Your task to perform on an android device: Toggle the flashlight Image 0: 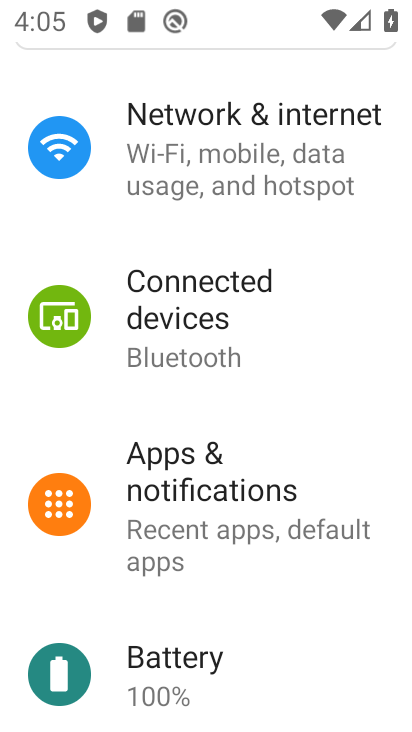
Step 0: drag from (261, 243) to (242, 623)
Your task to perform on an android device: Toggle the flashlight Image 1: 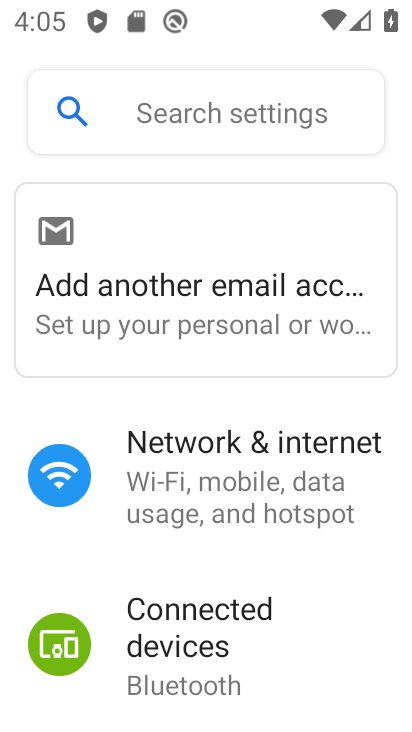
Step 1: task complete